Your task to perform on an android device: What's the weather going to be this weekend? Image 0: 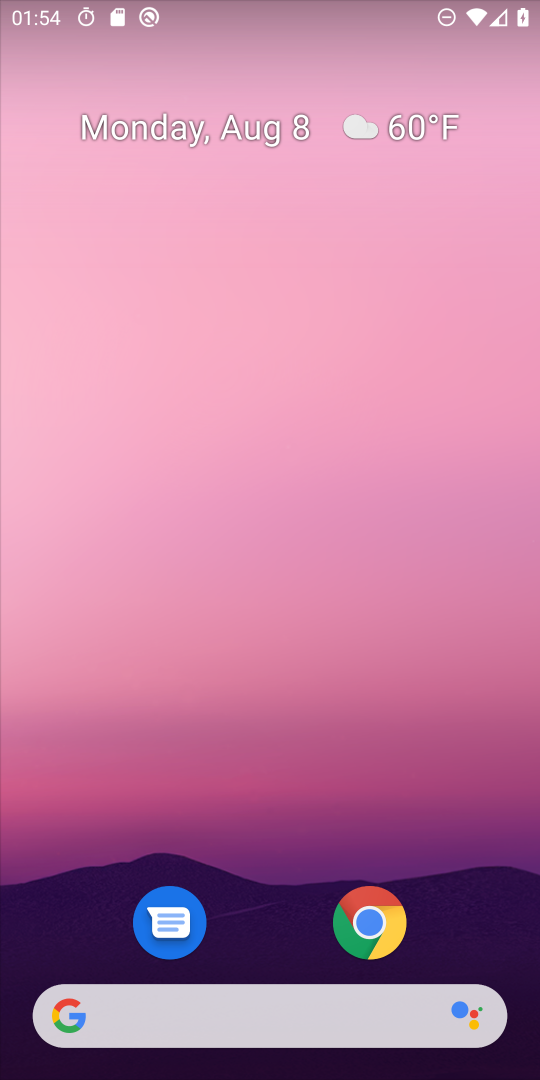
Step 0: click (404, 121)
Your task to perform on an android device: What's the weather going to be this weekend? Image 1: 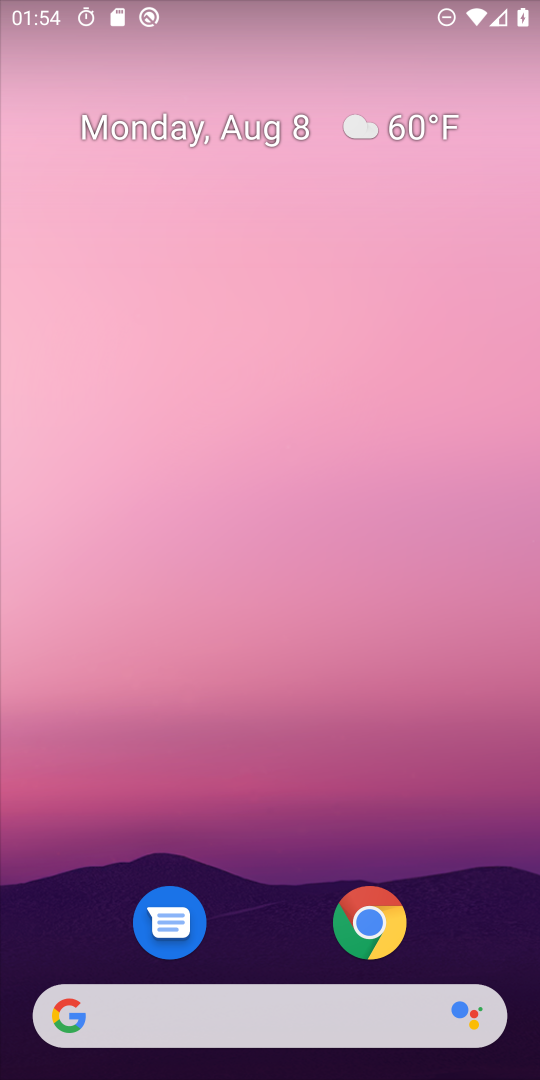
Step 1: click (369, 117)
Your task to perform on an android device: What's the weather going to be this weekend? Image 2: 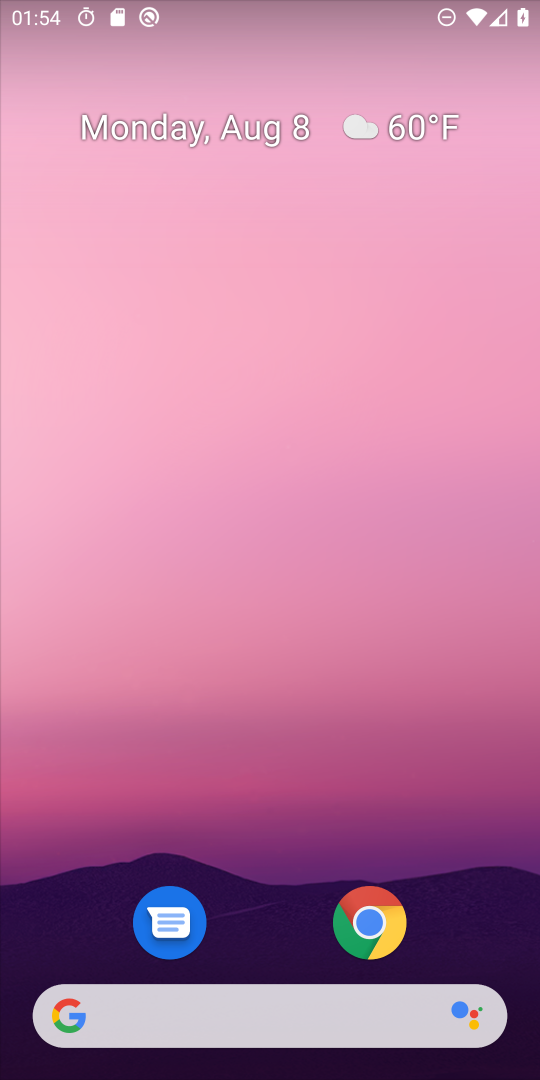
Step 2: drag from (475, 669) to (453, 93)
Your task to perform on an android device: What's the weather going to be this weekend? Image 3: 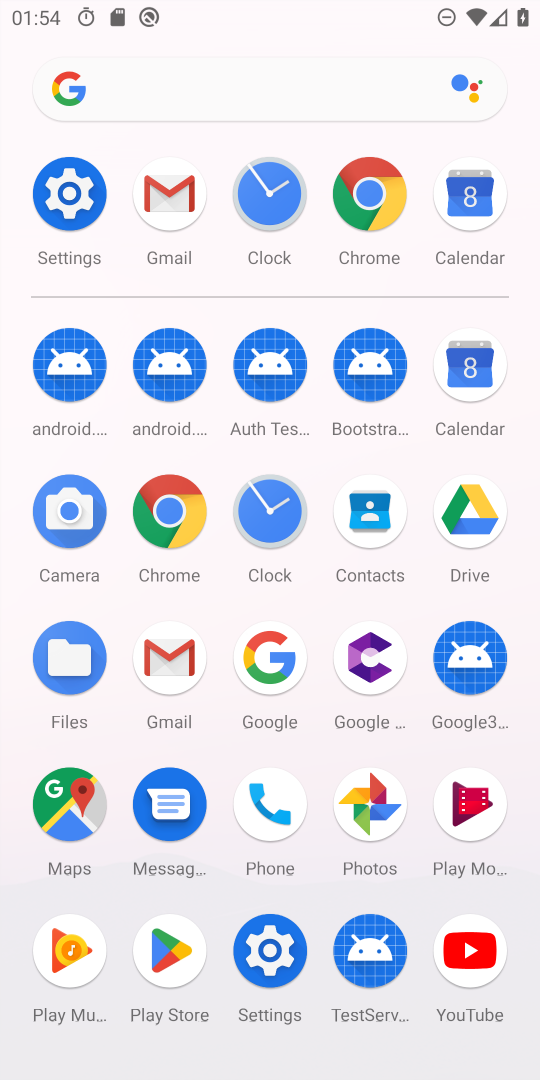
Step 3: click (376, 195)
Your task to perform on an android device: What's the weather going to be this weekend? Image 4: 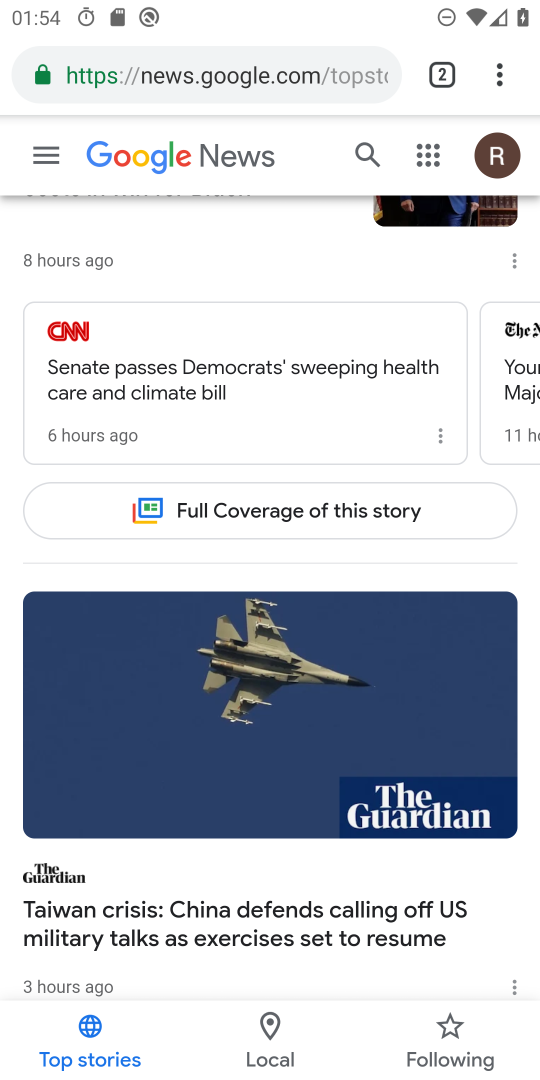
Step 4: click (231, 81)
Your task to perform on an android device: What's the weather going to be this weekend? Image 5: 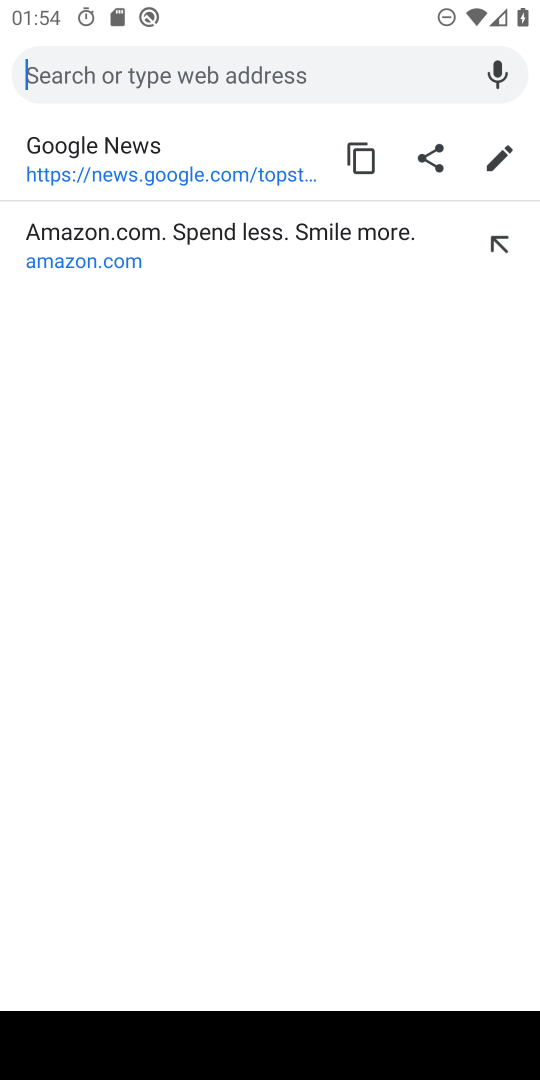
Step 5: type "weather"
Your task to perform on an android device: What's the weather going to be this weekend? Image 6: 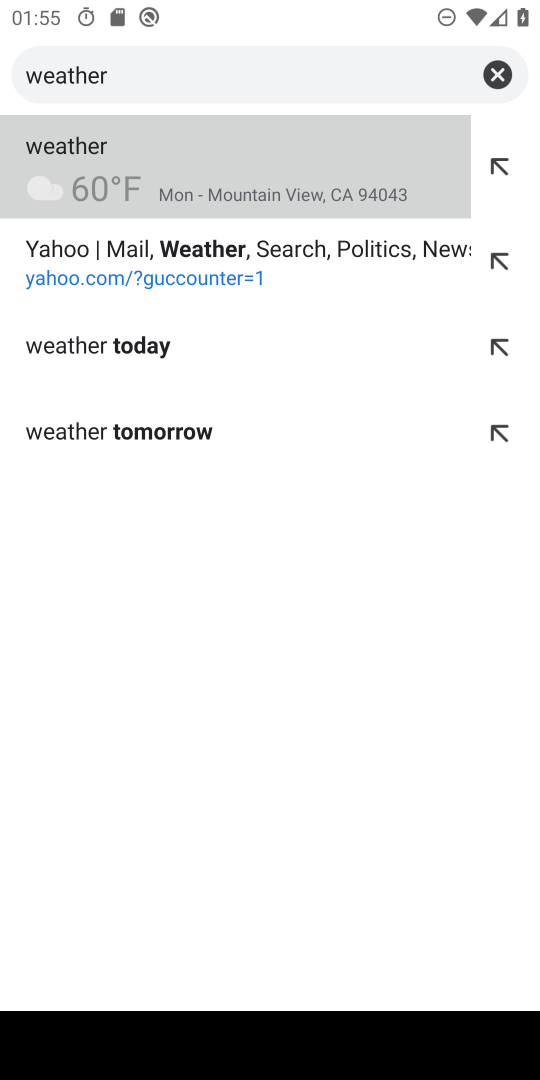
Step 6: click (180, 163)
Your task to perform on an android device: What's the weather going to be this weekend? Image 7: 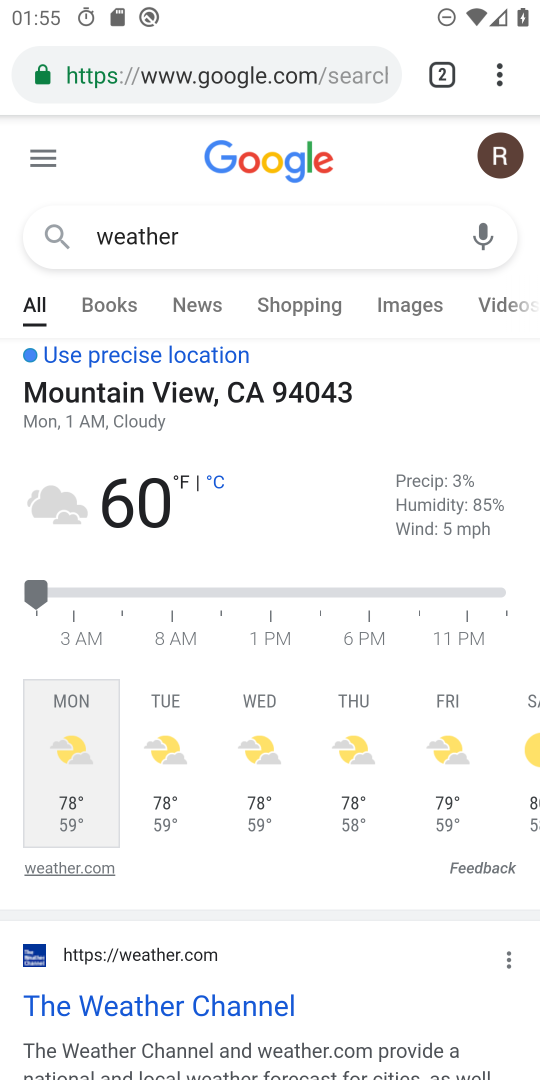
Step 7: click (521, 744)
Your task to perform on an android device: What's the weather going to be this weekend? Image 8: 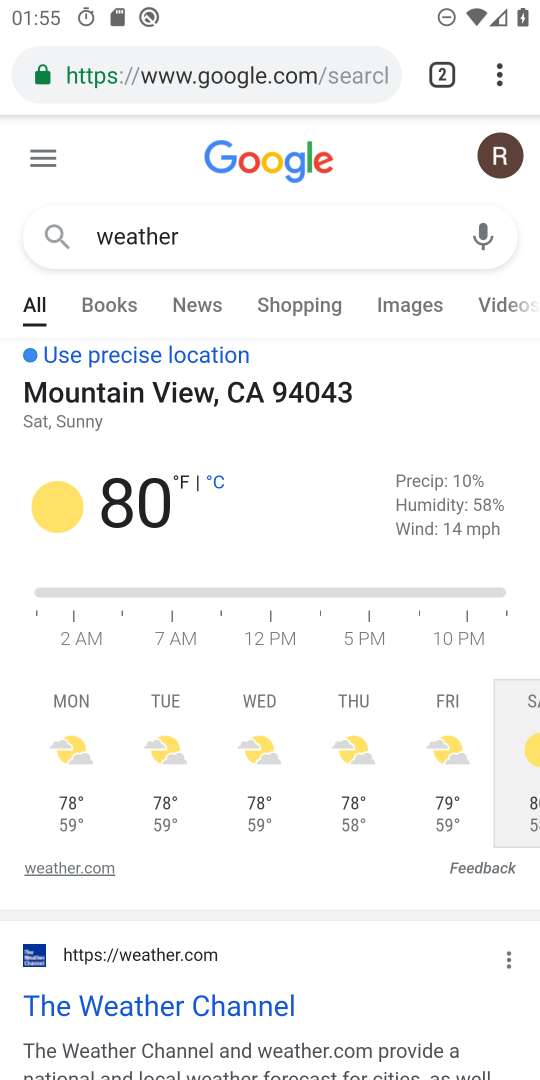
Step 8: task complete